Your task to perform on an android device: Open accessibility settings Image 0: 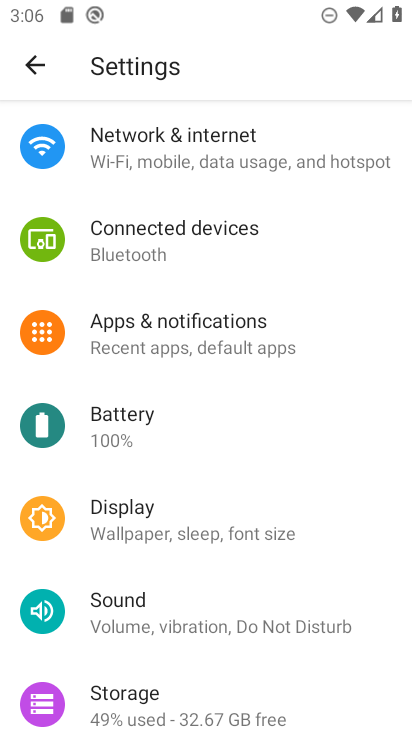
Step 0: drag from (221, 621) to (317, 6)
Your task to perform on an android device: Open accessibility settings Image 1: 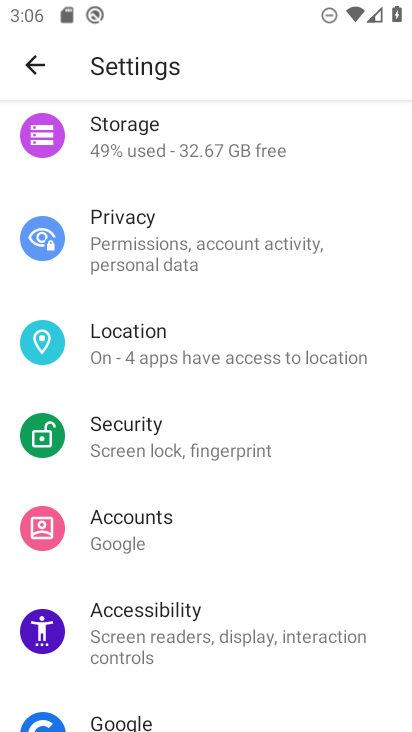
Step 1: click (197, 626)
Your task to perform on an android device: Open accessibility settings Image 2: 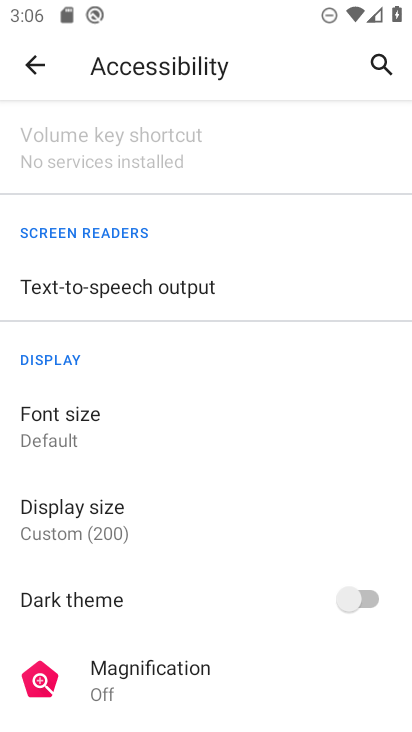
Step 2: task complete